Your task to perform on an android device: change notification settings in the gmail app Image 0: 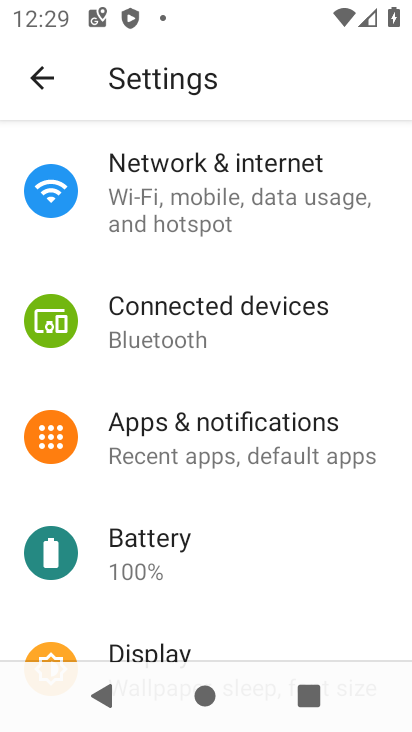
Step 0: press home button
Your task to perform on an android device: change notification settings in the gmail app Image 1: 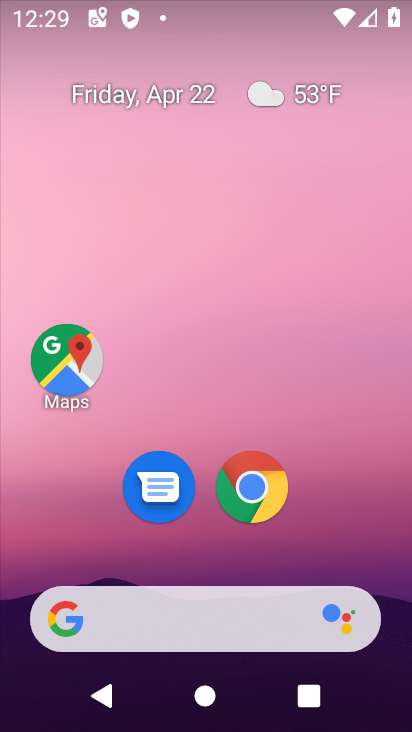
Step 1: drag from (335, 509) to (319, 131)
Your task to perform on an android device: change notification settings in the gmail app Image 2: 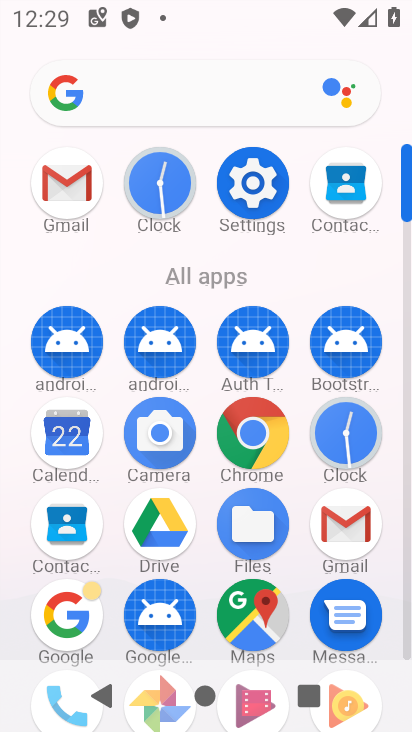
Step 2: click (81, 194)
Your task to perform on an android device: change notification settings in the gmail app Image 3: 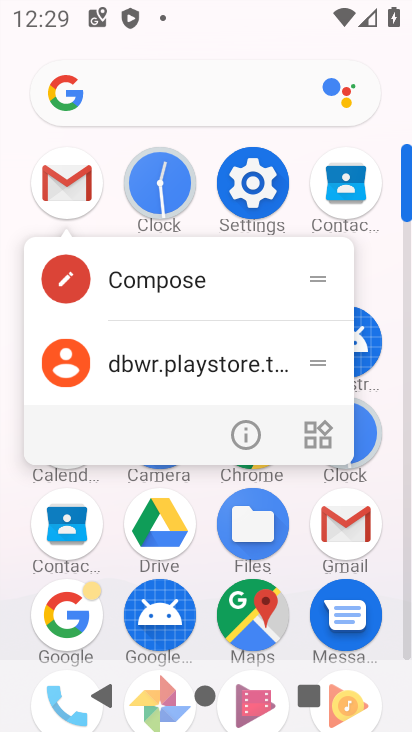
Step 3: click (75, 183)
Your task to perform on an android device: change notification settings in the gmail app Image 4: 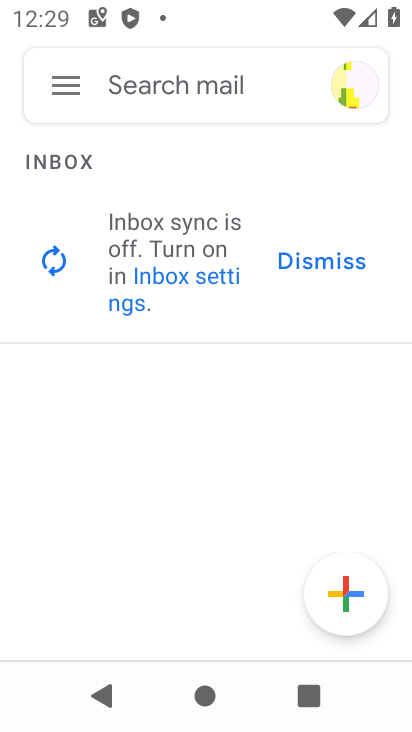
Step 4: click (71, 75)
Your task to perform on an android device: change notification settings in the gmail app Image 5: 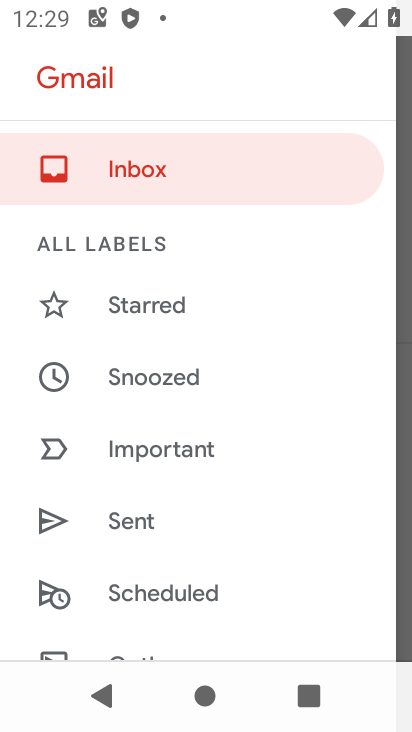
Step 5: drag from (213, 531) to (223, 138)
Your task to perform on an android device: change notification settings in the gmail app Image 6: 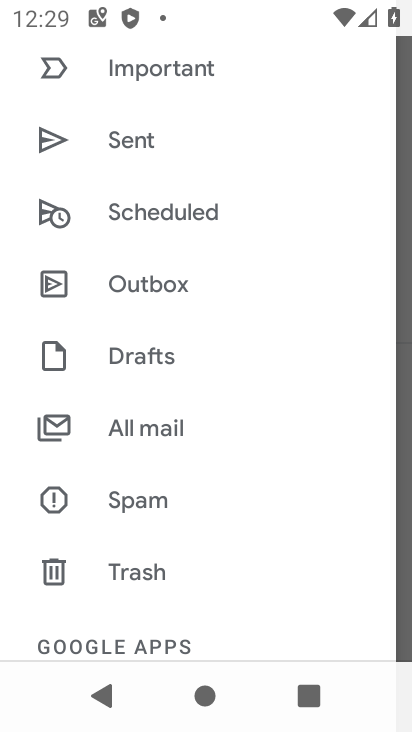
Step 6: drag from (202, 541) to (226, 147)
Your task to perform on an android device: change notification settings in the gmail app Image 7: 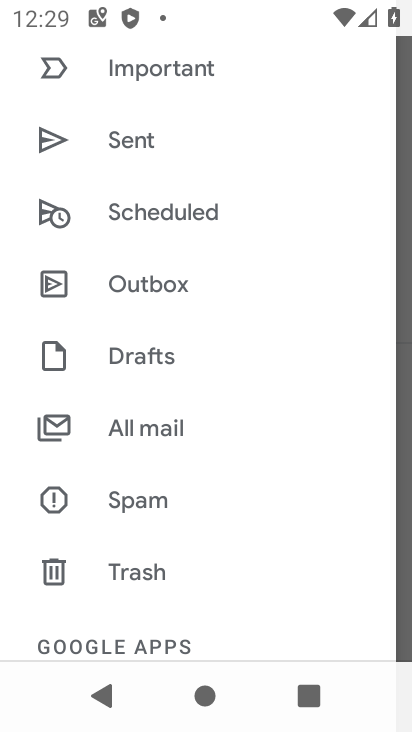
Step 7: drag from (230, 522) to (259, 191)
Your task to perform on an android device: change notification settings in the gmail app Image 8: 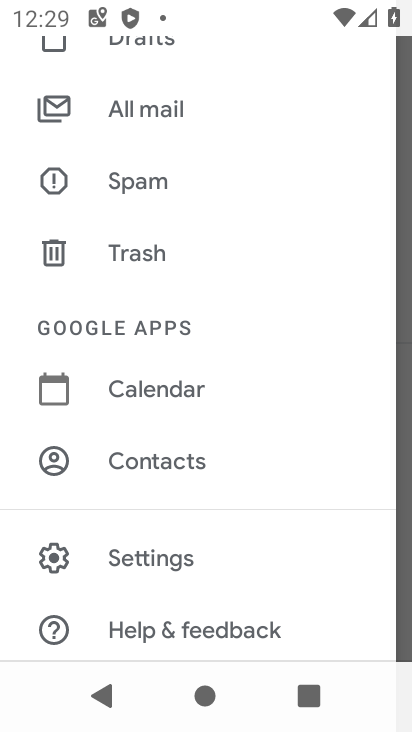
Step 8: click (195, 550)
Your task to perform on an android device: change notification settings in the gmail app Image 9: 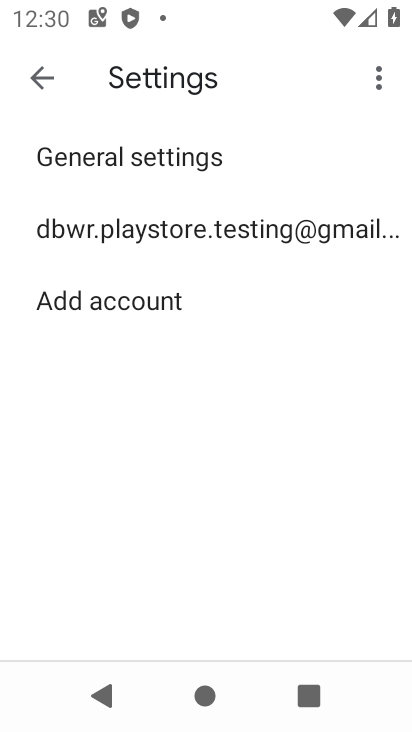
Step 9: click (242, 226)
Your task to perform on an android device: change notification settings in the gmail app Image 10: 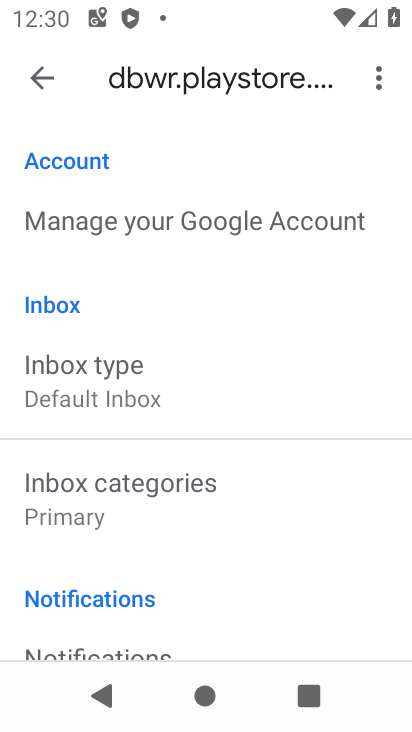
Step 10: drag from (239, 528) to (235, 177)
Your task to perform on an android device: change notification settings in the gmail app Image 11: 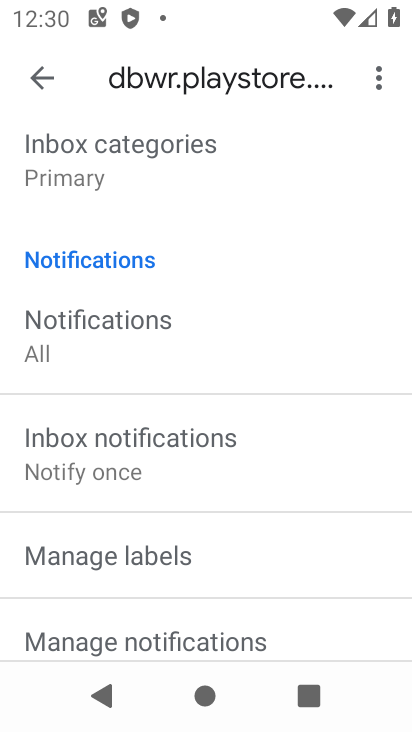
Step 11: click (217, 630)
Your task to perform on an android device: change notification settings in the gmail app Image 12: 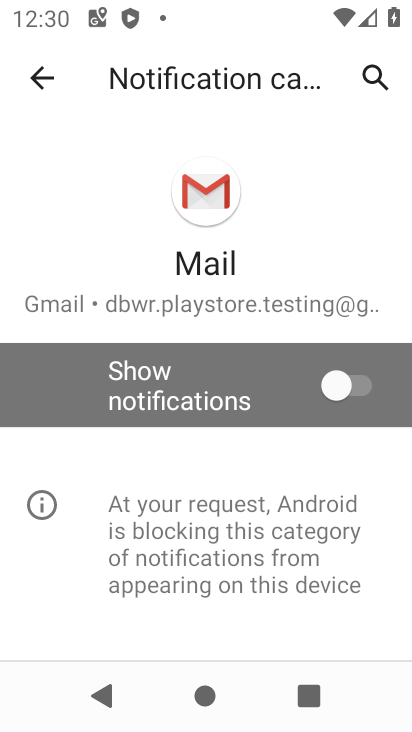
Step 12: click (355, 379)
Your task to perform on an android device: change notification settings in the gmail app Image 13: 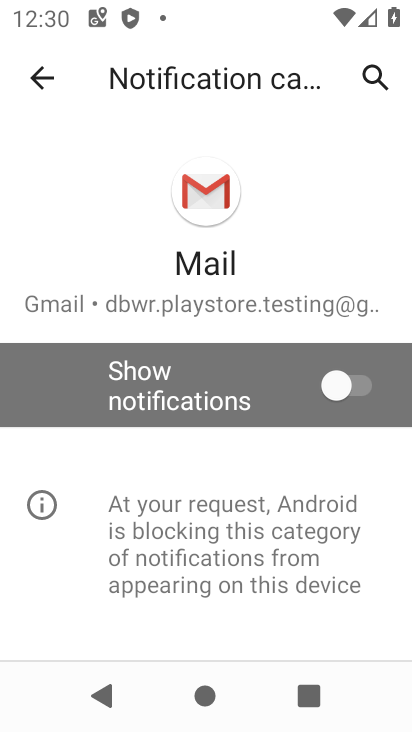
Step 13: click (344, 384)
Your task to perform on an android device: change notification settings in the gmail app Image 14: 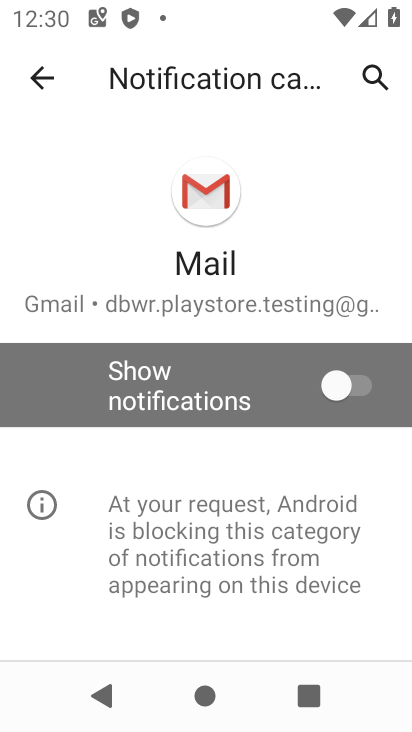
Step 14: click (45, 74)
Your task to perform on an android device: change notification settings in the gmail app Image 15: 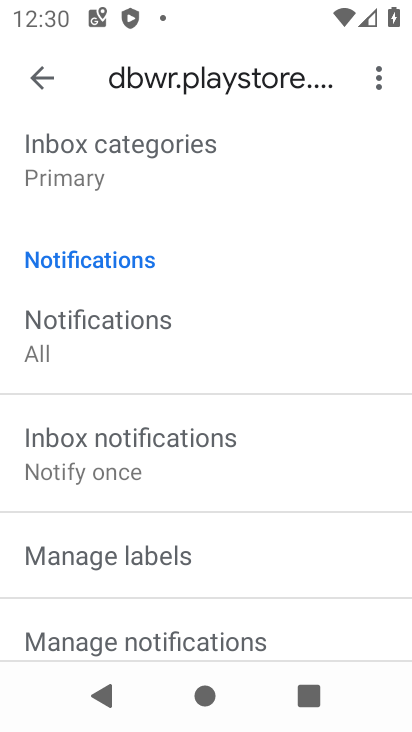
Step 15: click (47, 69)
Your task to perform on an android device: change notification settings in the gmail app Image 16: 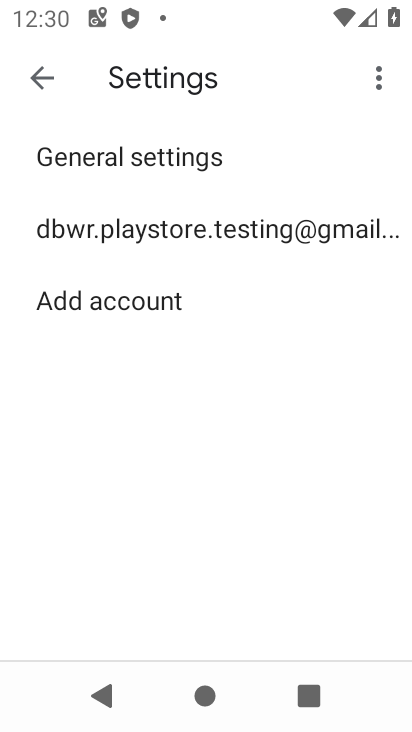
Step 16: click (124, 148)
Your task to perform on an android device: change notification settings in the gmail app Image 17: 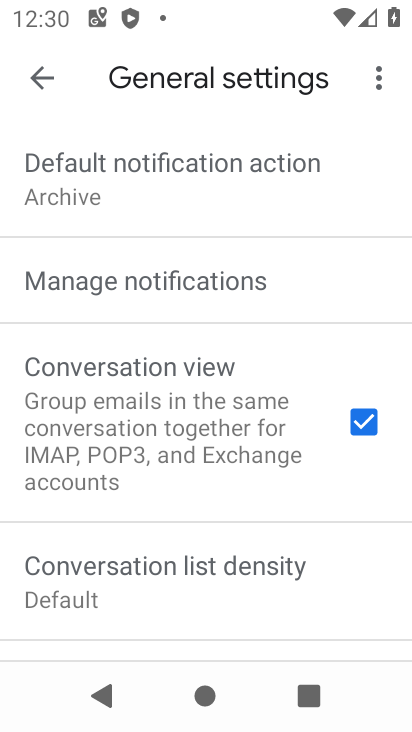
Step 17: click (265, 280)
Your task to perform on an android device: change notification settings in the gmail app Image 18: 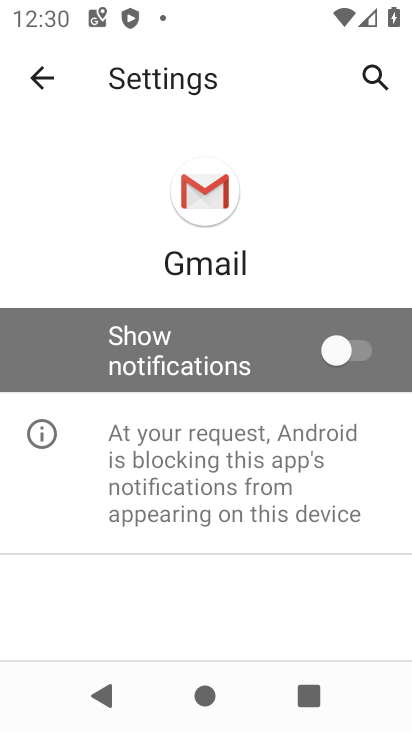
Step 18: click (347, 339)
Your task to perform on an android device: change notification settings in the gmail app Image 19: 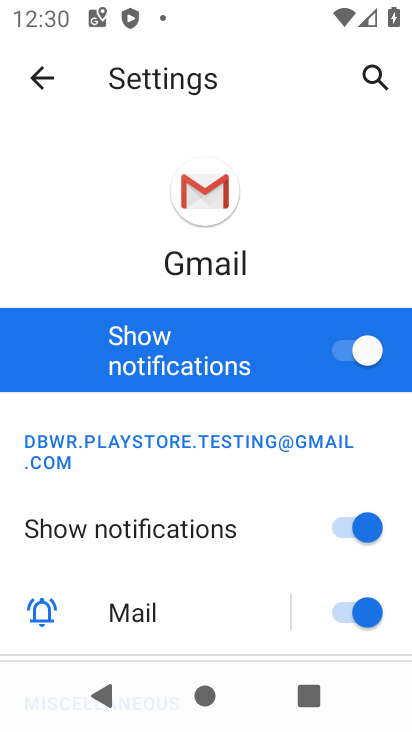
Step 19: task complete